Your task to perform on an android device: open app "PlayWell" Image 0: 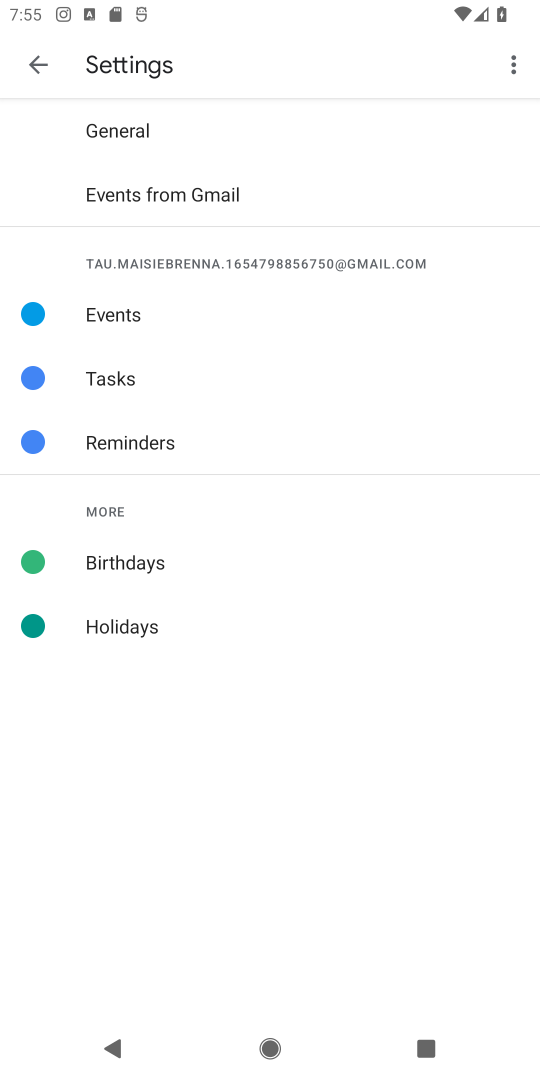
Step 0: press home button
Your task to perform on an android device: open app "PlayWell" Image 1: 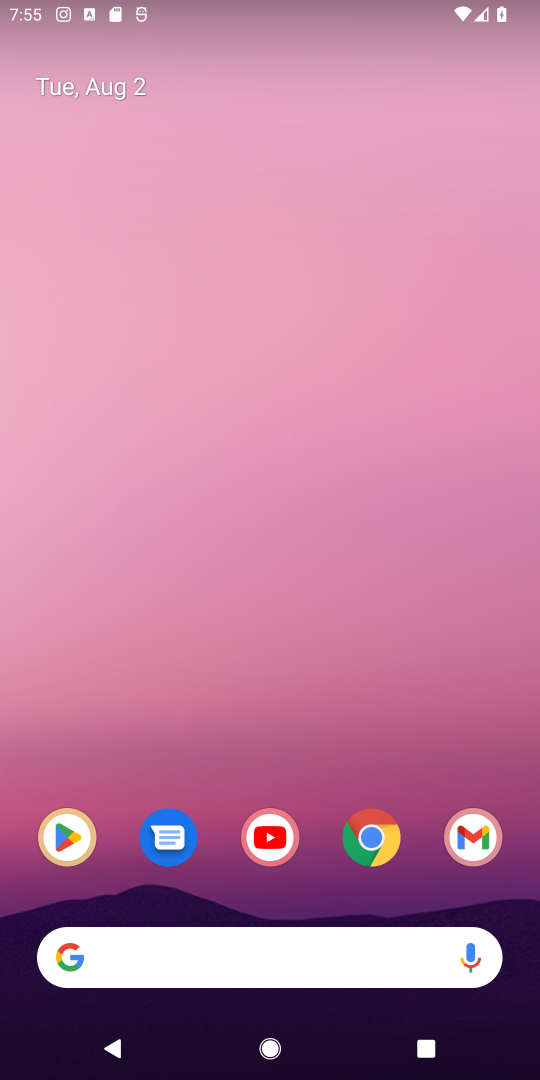
Step 1: click (69, 837)
Your task to perform on an android device: open app "PlayWell" Image 2: 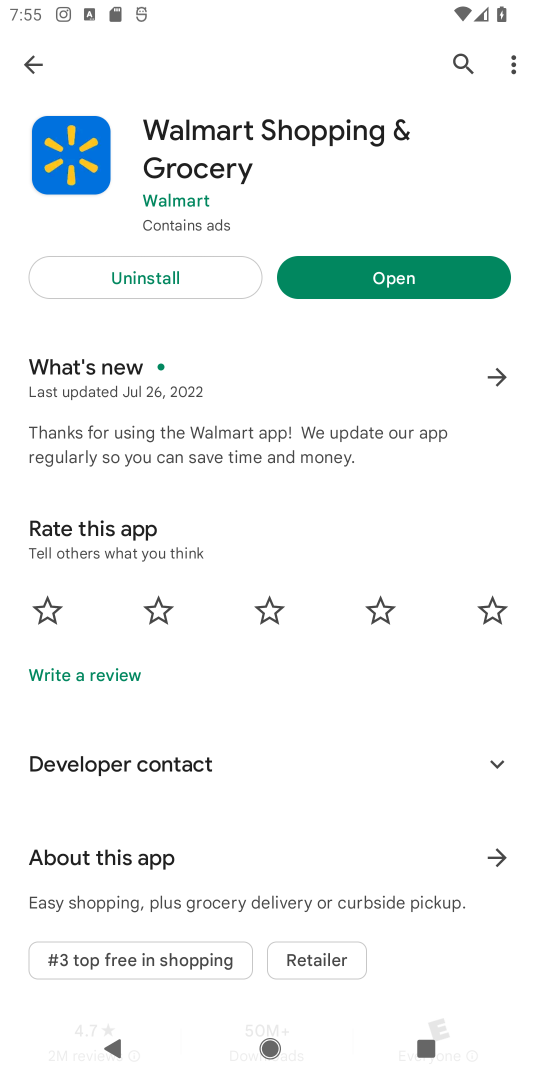
Step 2: click (444, 46)
Your task to perform on an android device: open app "PlayWell" Image 3: 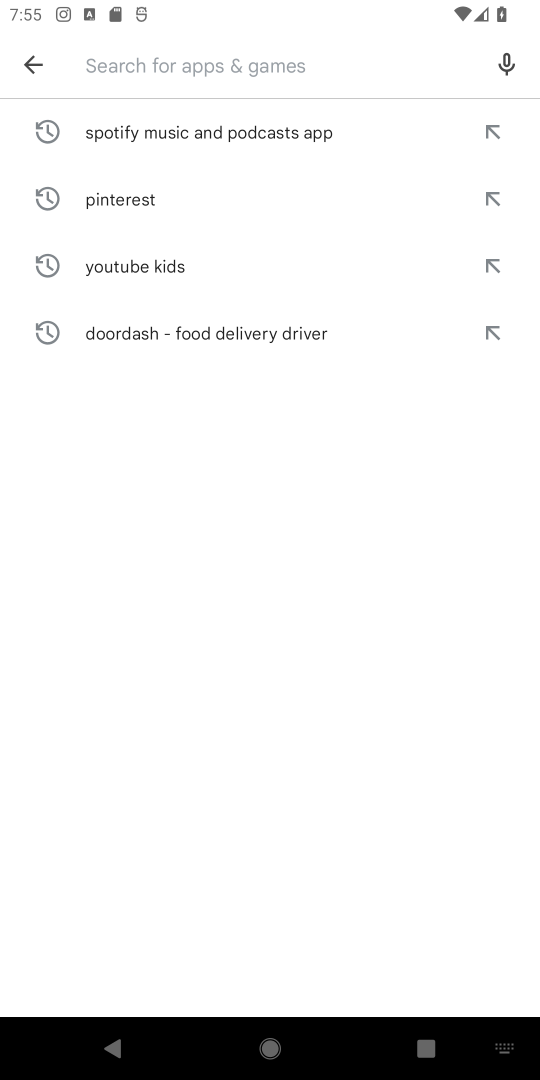
Step 3: type "PlayWell"
Your task to perform on an android device: open app "PlayWell" Image 4: 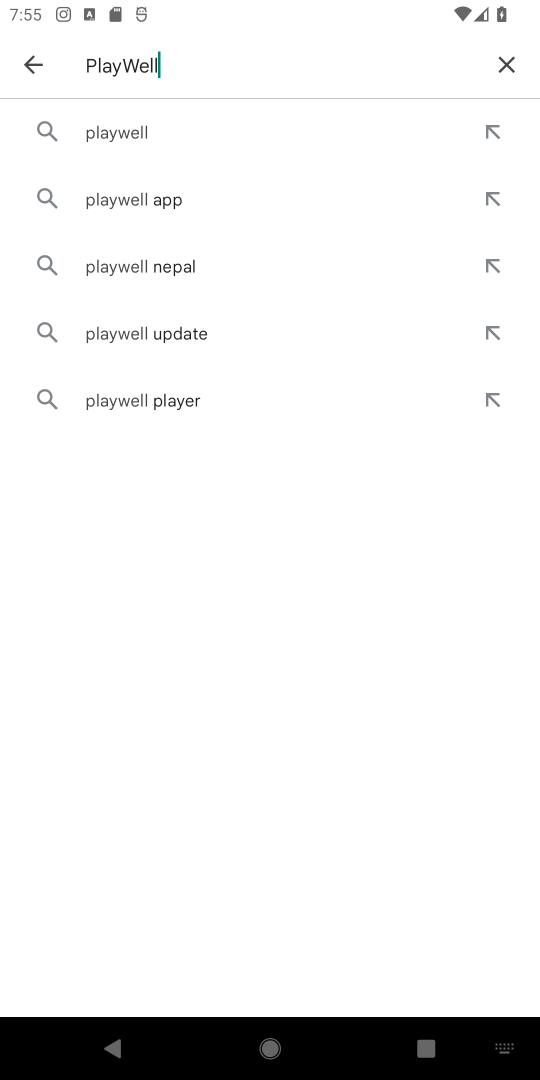
Step 4: click (88, 136)
Your task to perform on an android device: open app "PlayWell" Image 5: 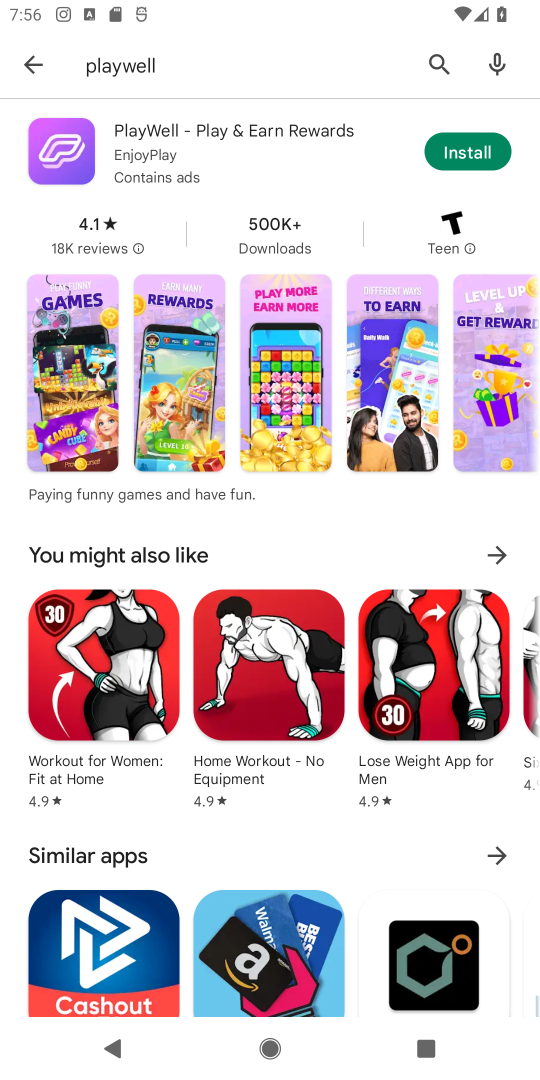
Step 5: task complete